Your task to perform on an android device: toggle priority inbox in the gmail app Image 0: 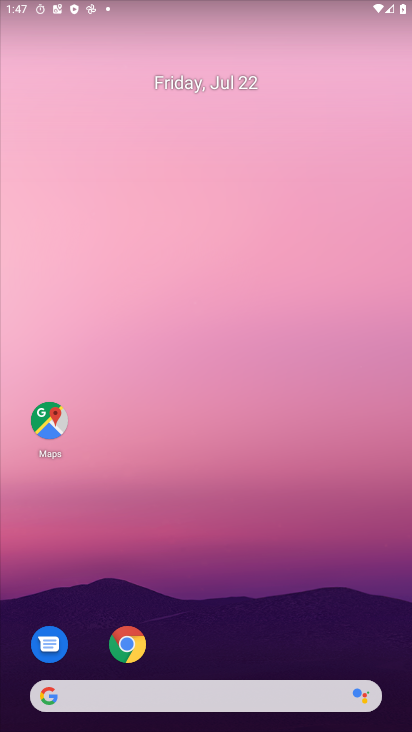
Step 0: drag from (242, 683) to (187, 299)
Your task to perform on an android device: toggle priority inbox in the gmail app Image 1: 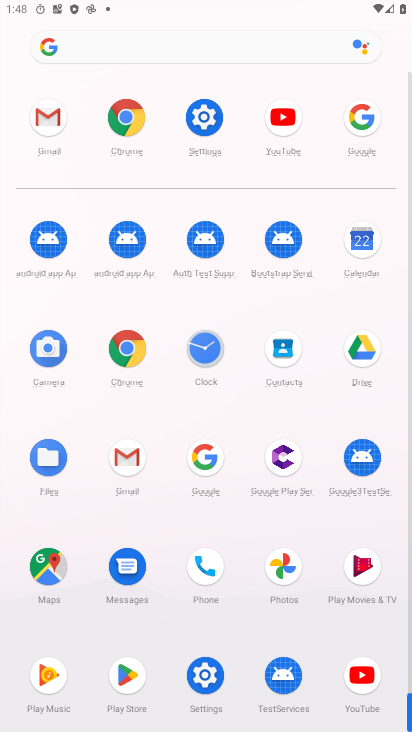
Step 1: click (153, 471)
Your task to perform on an android device: toggle priority inbox in the gmail app Image 2: 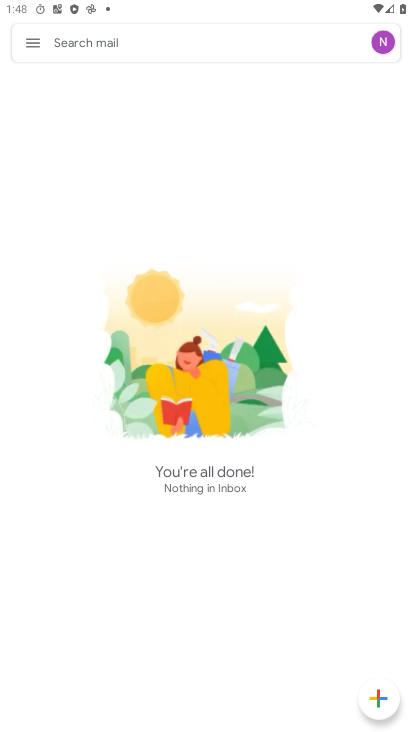
Step 2: click (37, 37)
Your task to perform on an android device: toggle priority inbox in the gmail app Image 3: 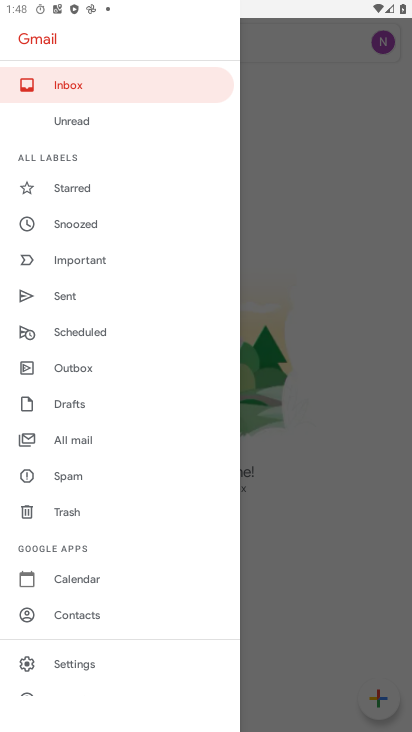
Step 3: click (72, 662)
Your task to perform on an android device: toggle priority inbox in the gmail app Image 4: 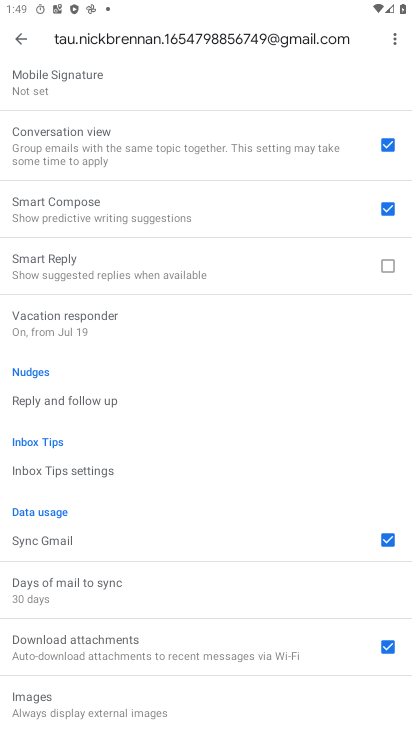
Step 4: drag from (178, 238) to (122, 723)
Your task to perform on an android device: toggle priority inbox in the gmail app Image 5: 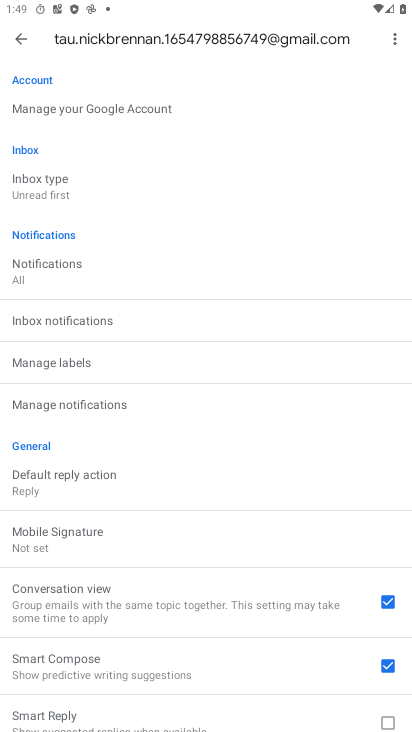
Step 5: click (68, 202)
Your task to perform on an android device: toggle priority inbox in the gmail app Image 6: 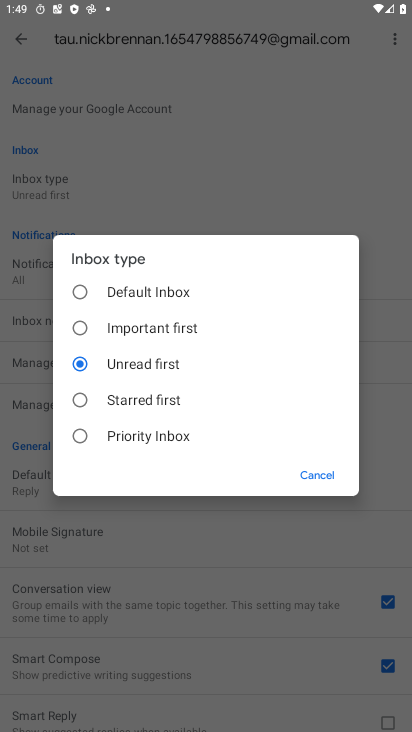
Step 6: click (105, 441)
Your task to perform on an android device: toggle priority inbox in the gmail app Image 7: 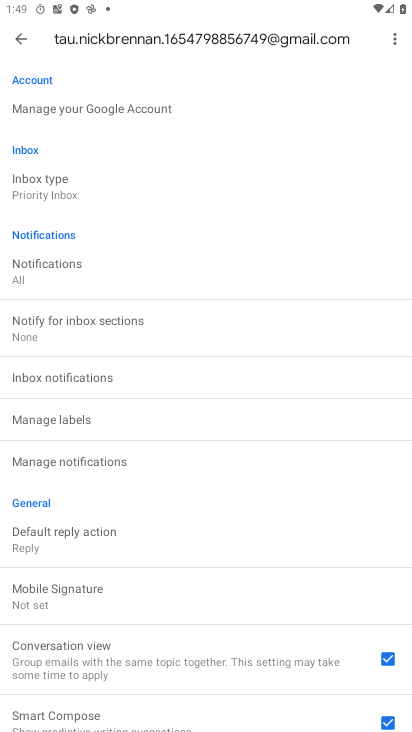
Step 7: task complete